Your task to perform on an android device: delete location history Image 0: 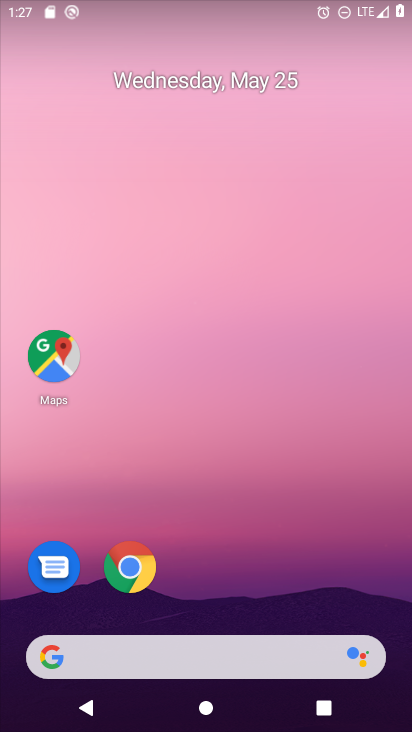
Step 0: drag from (395, 621) to (337, 174)
Your task to perform on an android device: delete location history Image 1: 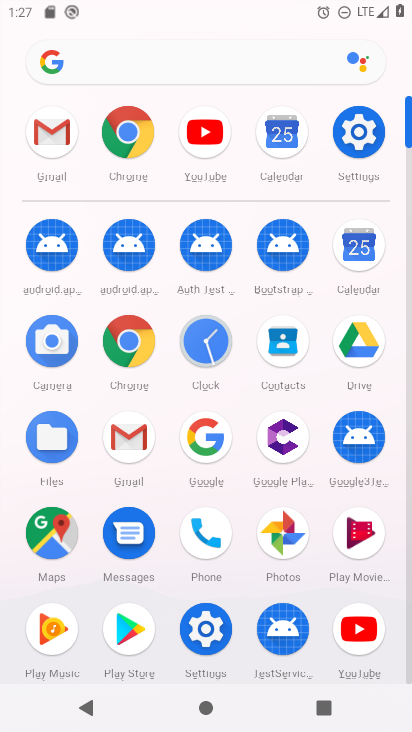
Step 1: click (48, 548)
Your task to perform on an android device: delete location history Image 2: 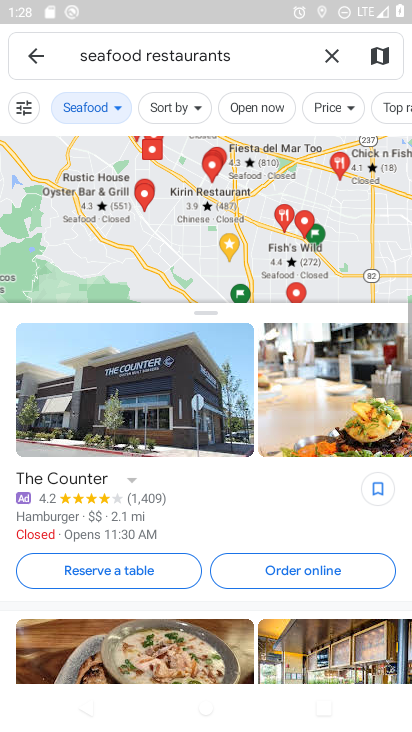
Step 2: click (32, 60)
Your task to perform on an android device: delete location history Image 3: 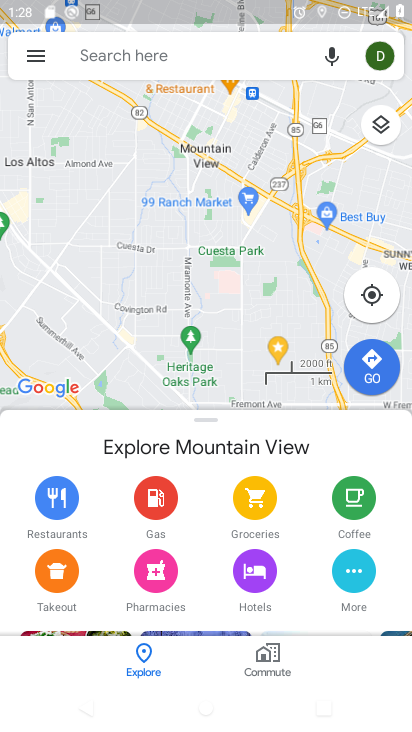
Step 3: click (33, 47)
Your task to perform on an android device: delete location history Image 4: 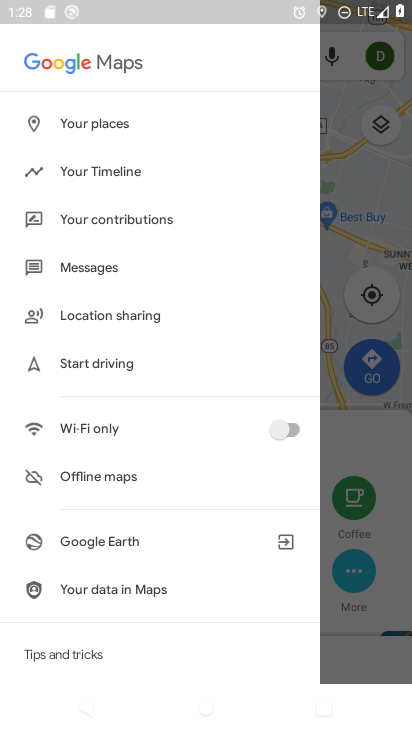
Step 4: click (65, 169)
Your task to perform on an android device: delete location history Image 5: 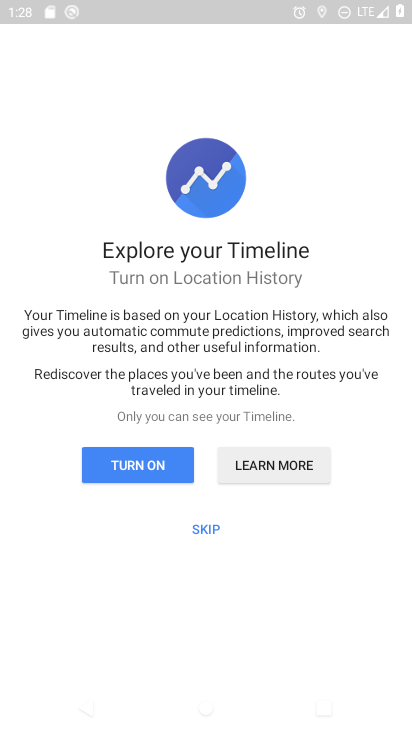
Step 5: click (158, 464)
Your task to perform on an android device: delete location history Image 6: 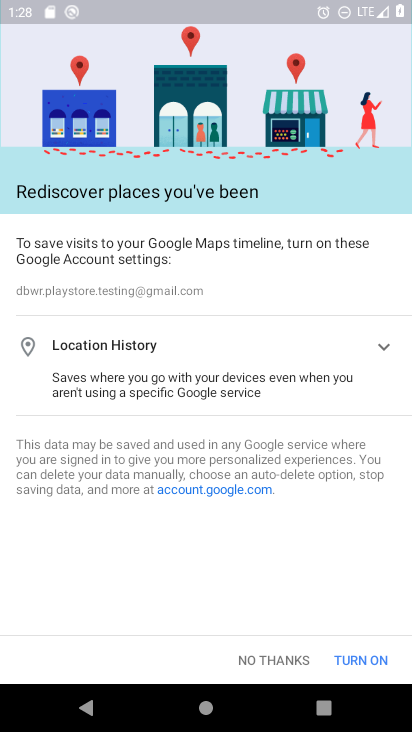
Step 6: click (349, 654)
Your task to perform on an android device: delete location history Image 7: 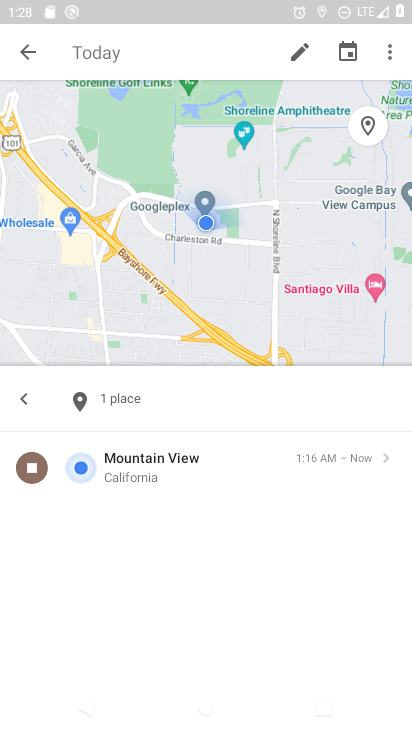
Step 7: click (389, 52)
Your task to perform on an android device: delete location history Image 8: 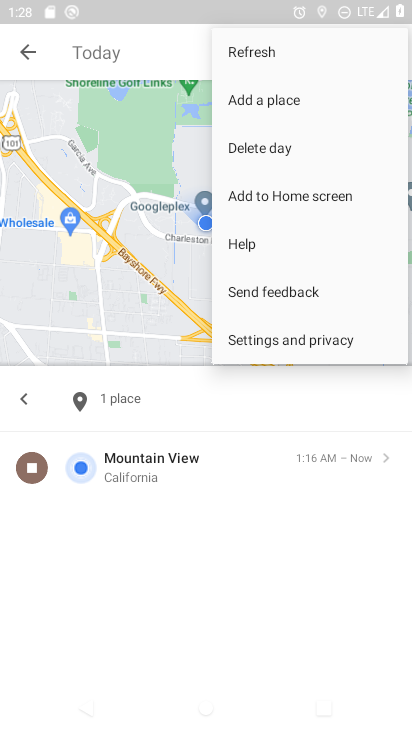
Step 8: click (293, 339)
Your task to perform on an android device: delete location history Image 9: 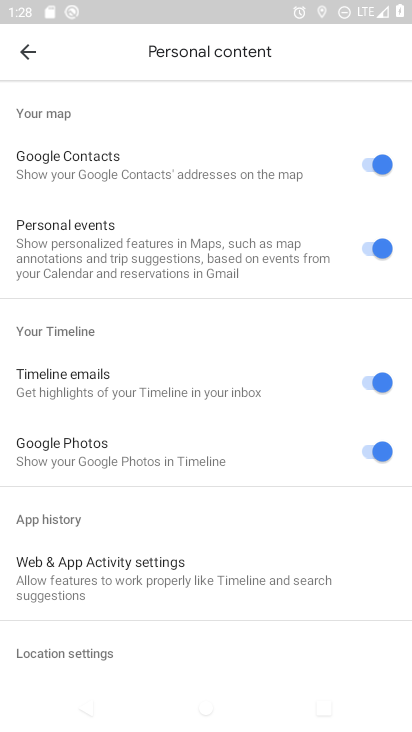
Step 9: drag from (164, 621) to (103, 266)
Your task to perform on an android device: delete location history Image 10: 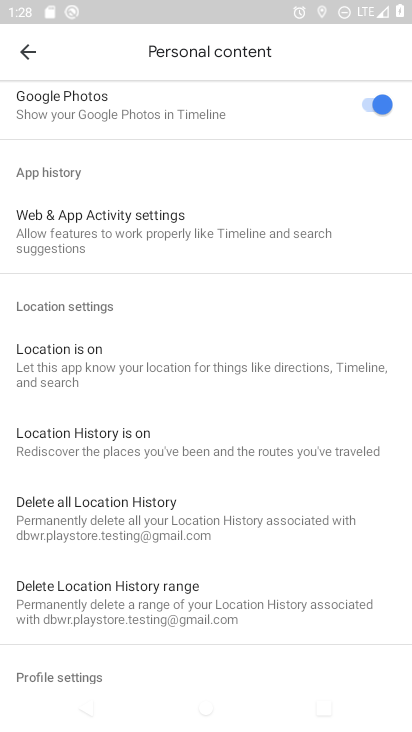
Step 10: click (83, 509)
Your task to perform on an android device: delete location history Image 11: 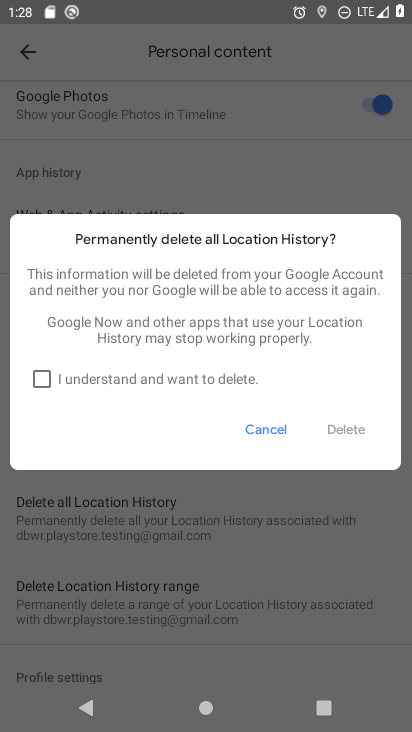
Step 11: click (32, 377)
Your task to perform on an android device: delete location history Image 12: 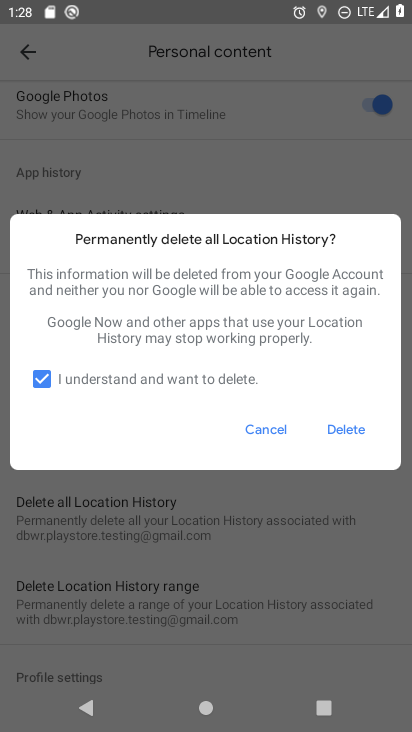
Step 12: click (333, 424)
Your task to perform on an android device: delete location history Image 13: 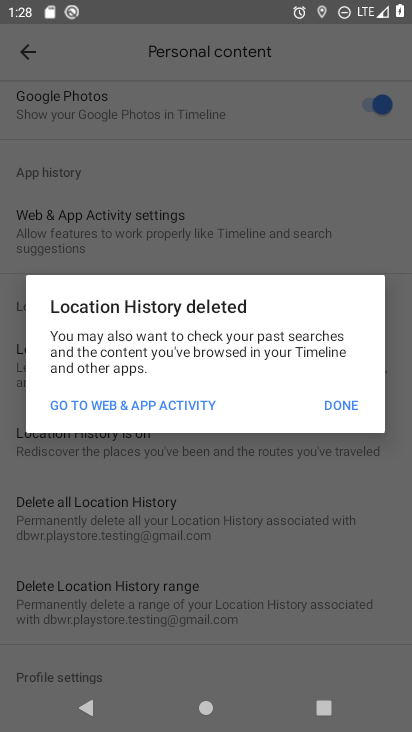
Step 13: click (338, 406)
Your task to perform on an android device: delete location history Image 14: 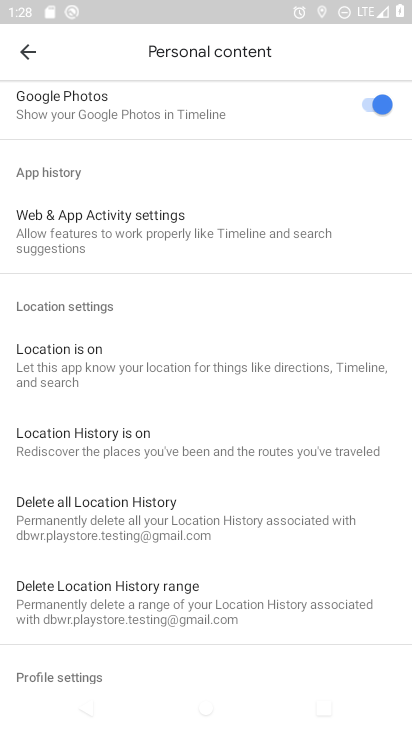
Step 14: task complete